Your task to perform on an android device: Open Wikipedia Image 0: 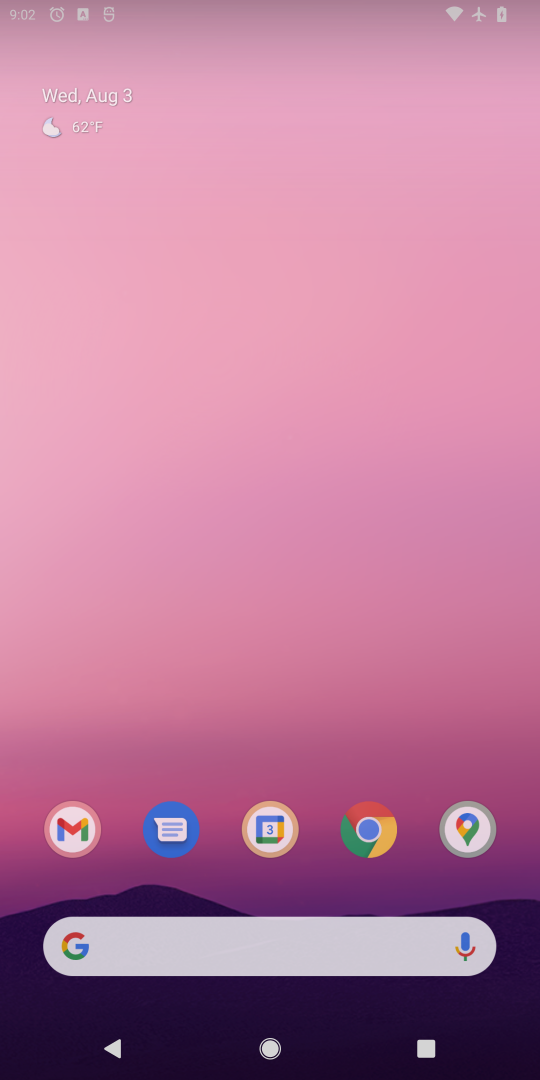
Step 0: press home button
Your task to perform on an android device: Open Wikipedia Image 1: 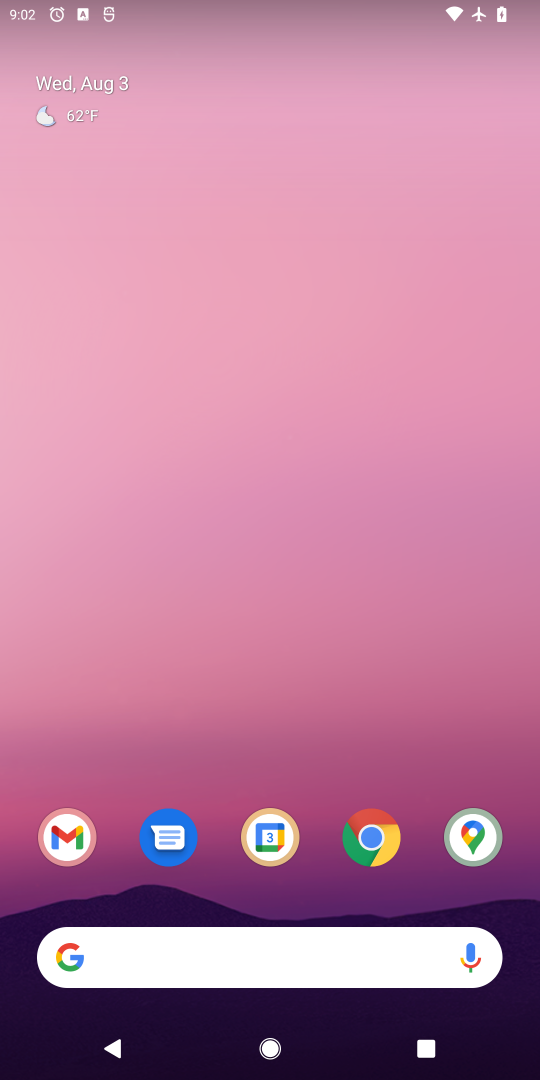
Step 1: click (57, 966)
Your task to perform on an android device: Open Wikipedia Image 2: 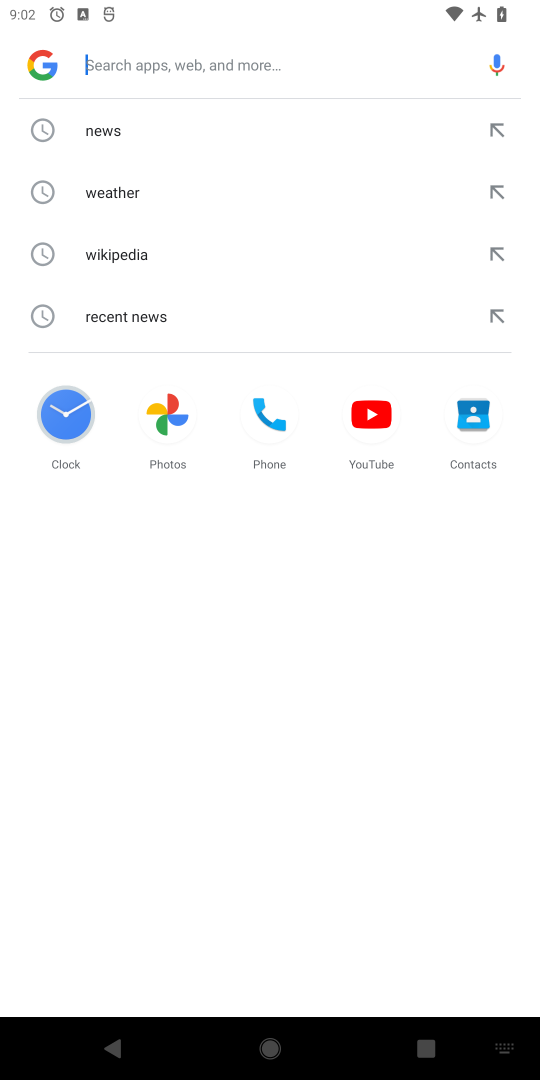
Step 2: click (109, 273)
Your task to perform on an android device: Open Wikipedia Image 3: 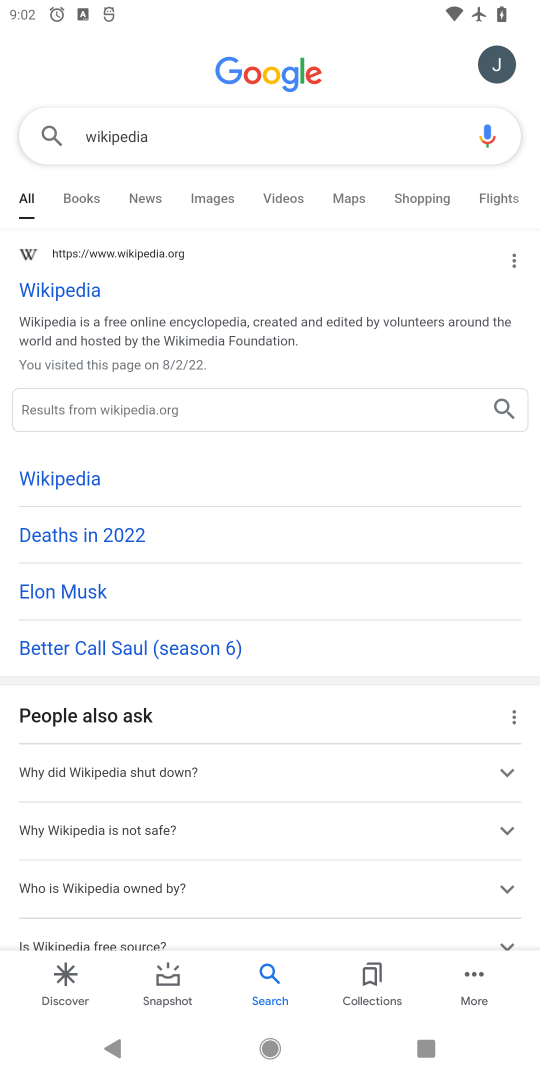
Step 3: click (41, 298)
Your task to perform on an android device: Open Wikipedia Image 4: 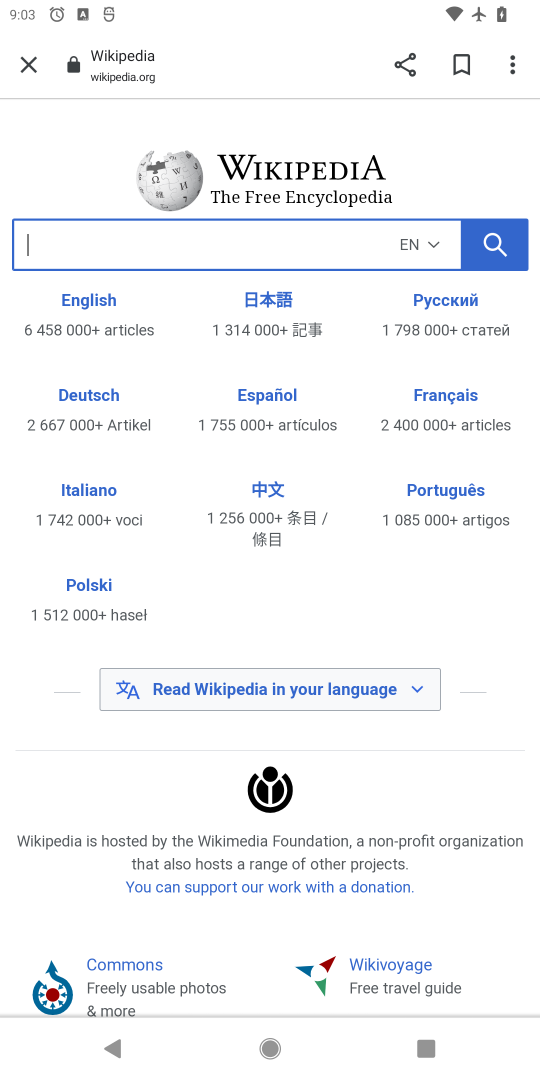
Step 4: task complete